Your task to perform on an android device: Go to Android settings Image 0: 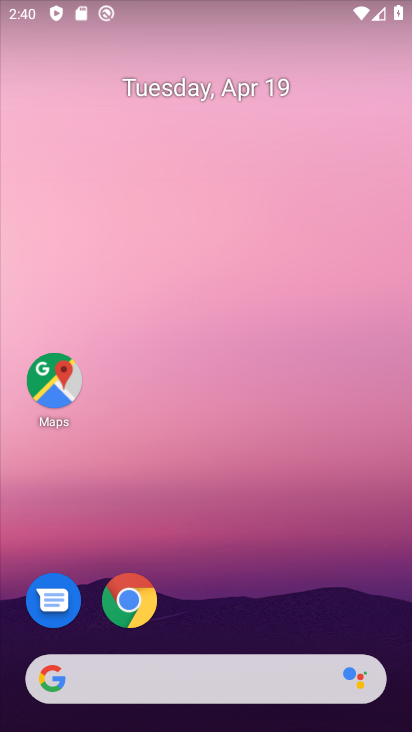
Step 0: drag from (338, 607) to (213, 226)
Your task to perform on an android device: Go to Android settings Image 1: 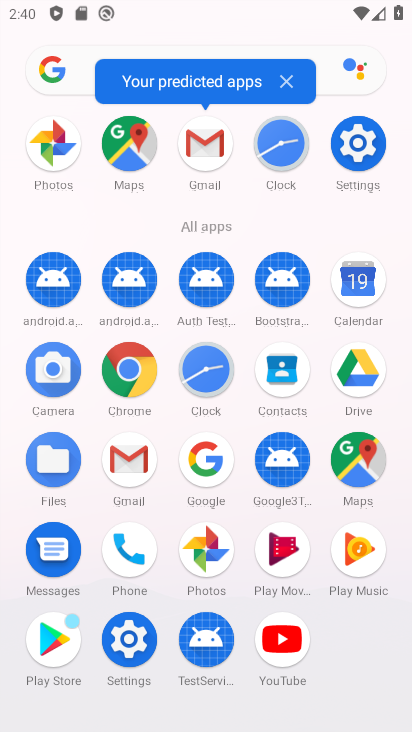
Step 1: click (353, 153)
Your task to perform on an android device: Go to Android settings Image 2: 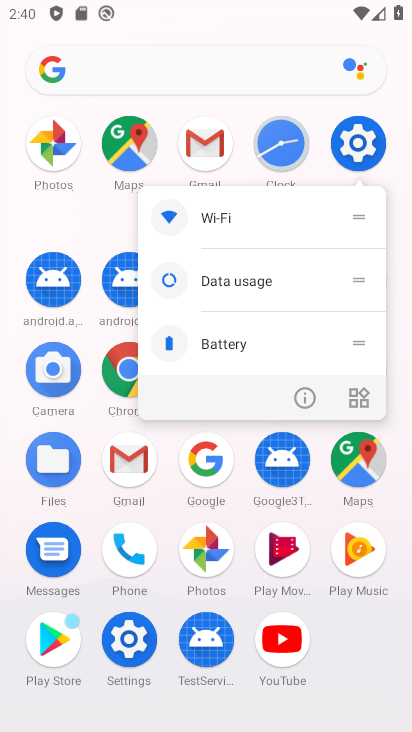
Step 2: click (361, 138)
Your task to perform on an android device: Go to Android settings Image 3: 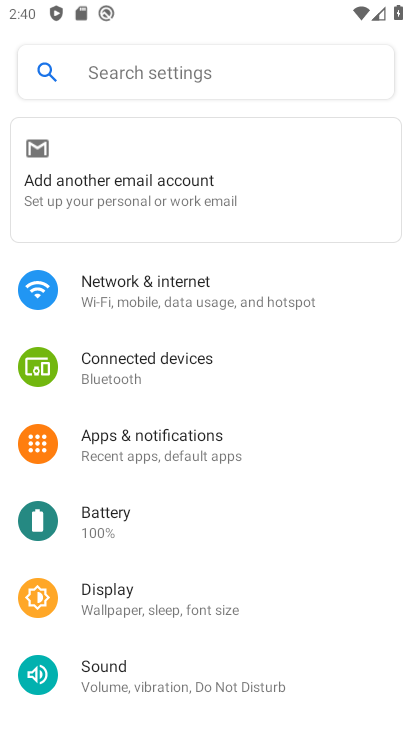
Step 3: drag from (307, 645) to (261, 331)
Your task to perform on an android device: Go to Android settings Image 4: 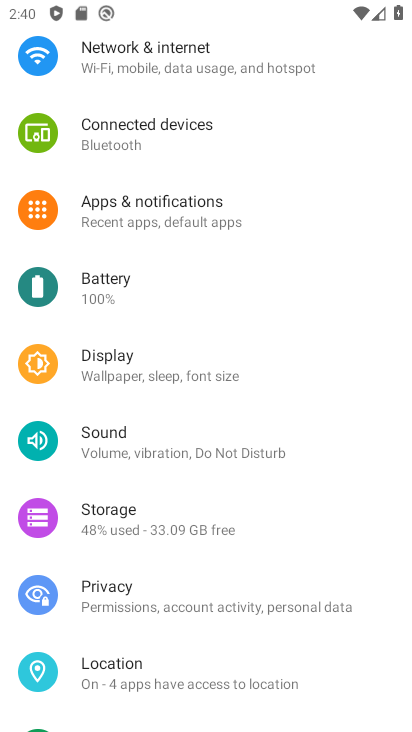
Step 4: drag from (303, 550) to (286, 230)
Your task to perform on an android device: Go to Android settings Image 5: 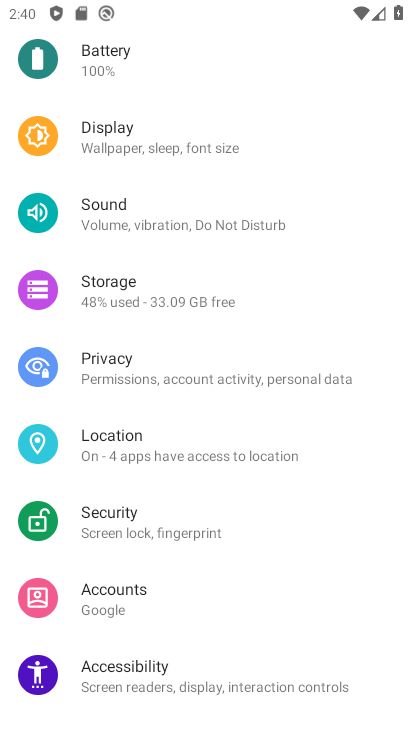
Step 5: drag from (312, 621) to (282, 245)
Your task to perform on an android device: Go to Android settings Image 6: 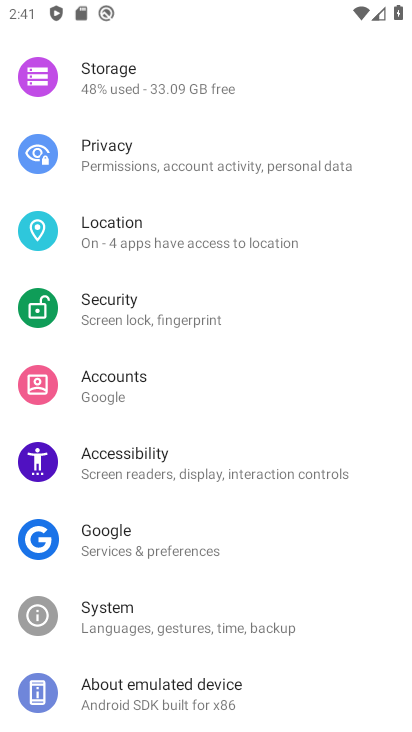
Step 6: click (275, 684)
Your task to perform on an android device: Go to Android settings Image 7: 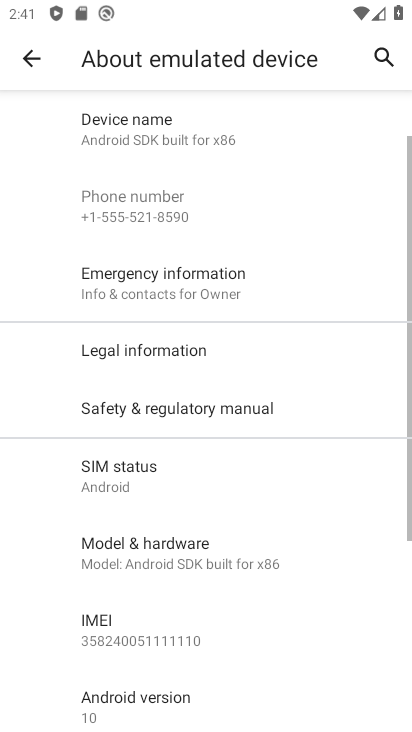
Step 7: drag from (274, 668) to (235, 289)
Your task to perform on an android device: Go to Android settings Image 8: 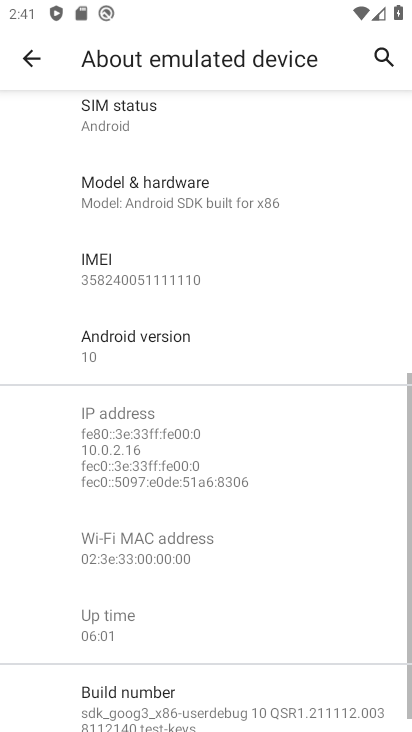
Step 8: click (257, 349)
Your task to perform on an android device: Go to Android settings Image 9: 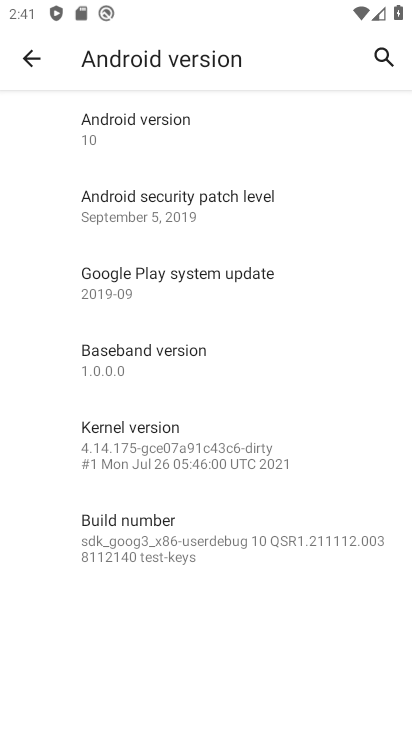
Step 9: task complete